Your task to perform on an android device: Open wifi settings Image 0: 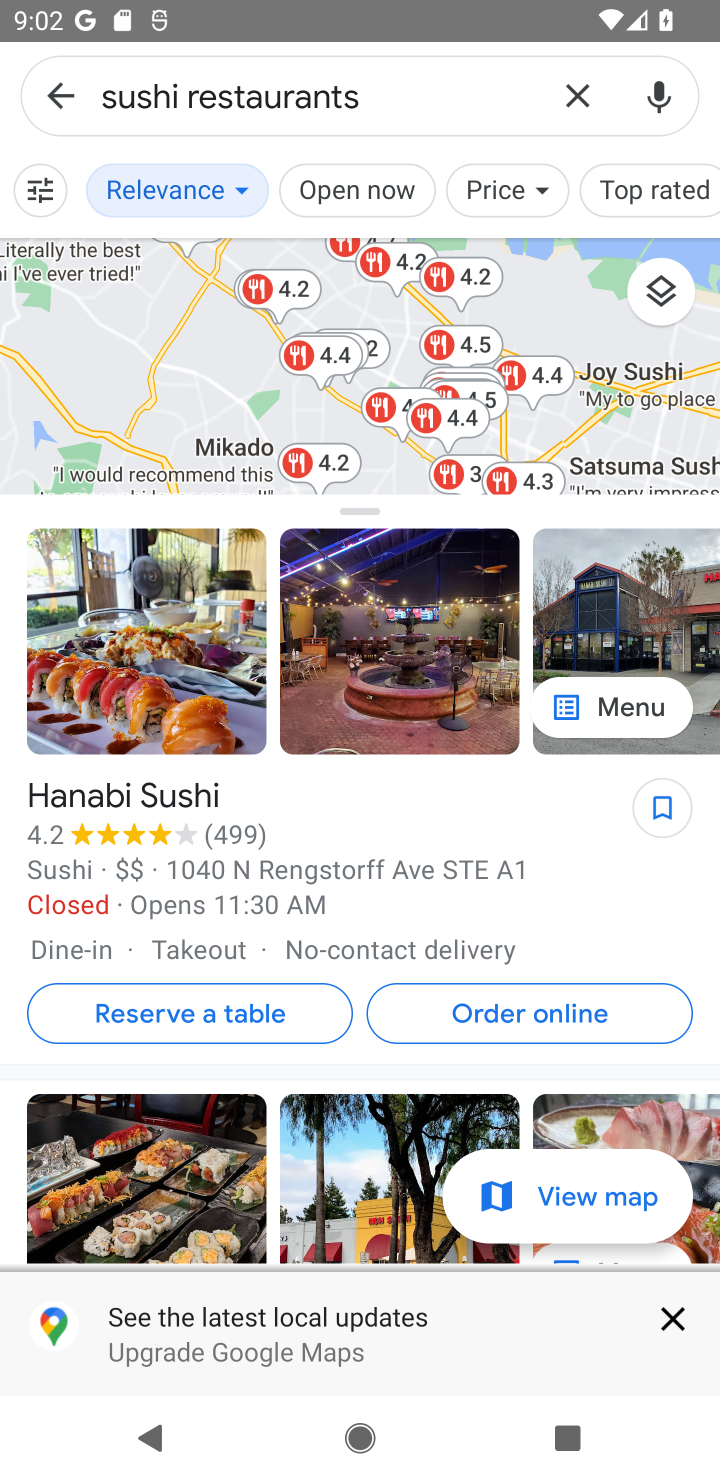
Step 0: press home button
Your task to perform on an android device: Open wifi settings Image 1: 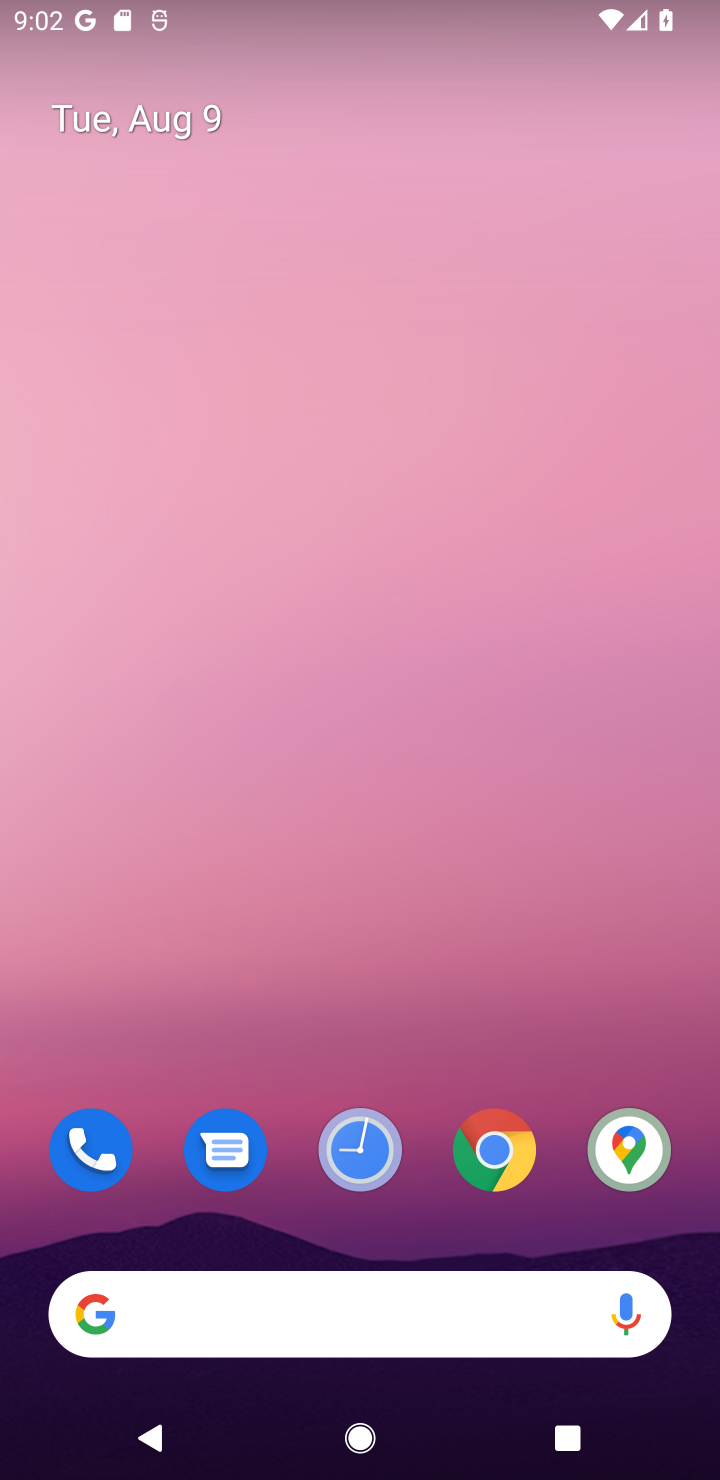
Step 1: drag from (466, 1240) to (524, 458)
Your task to perform on an android device: Open wifi settings Image 2: 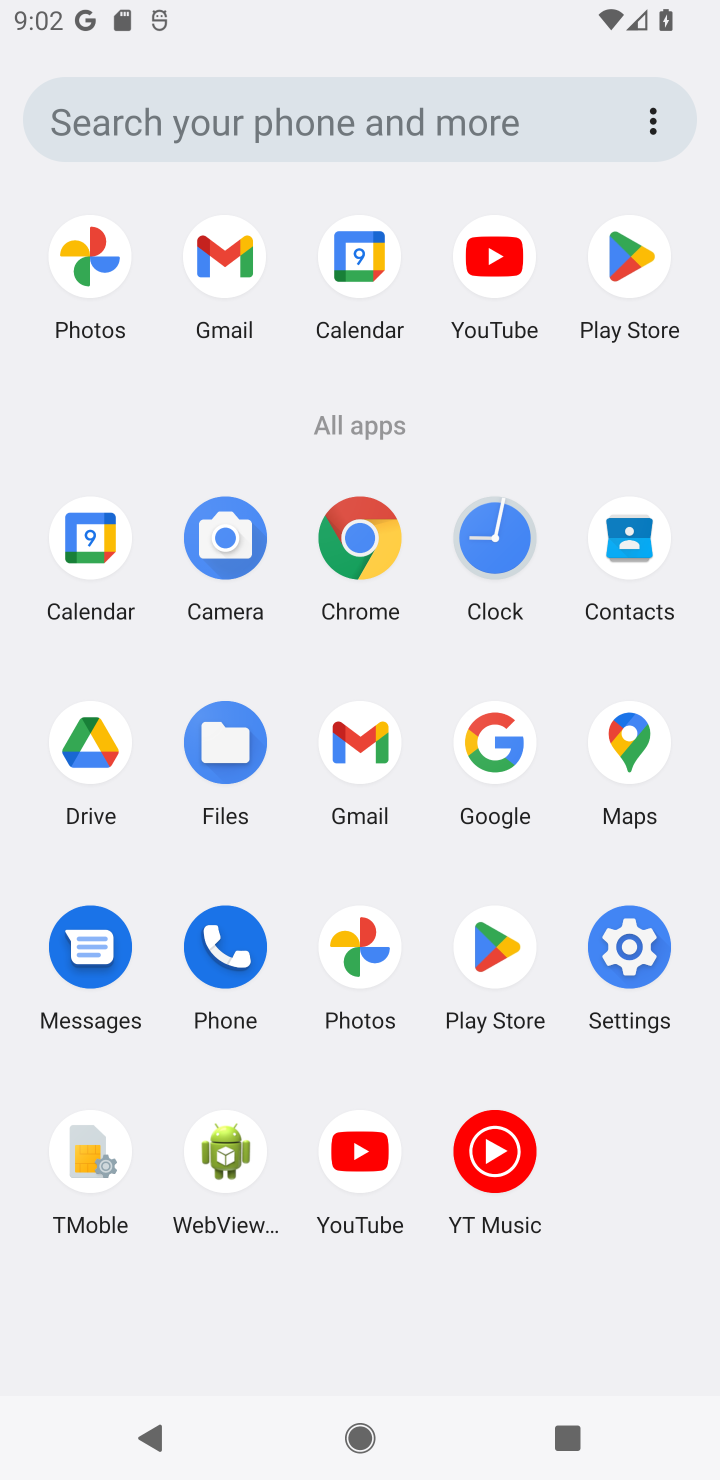
Step 2: click (649, 978)
Your task to perform on an android device: Open wifi settings Image 3: 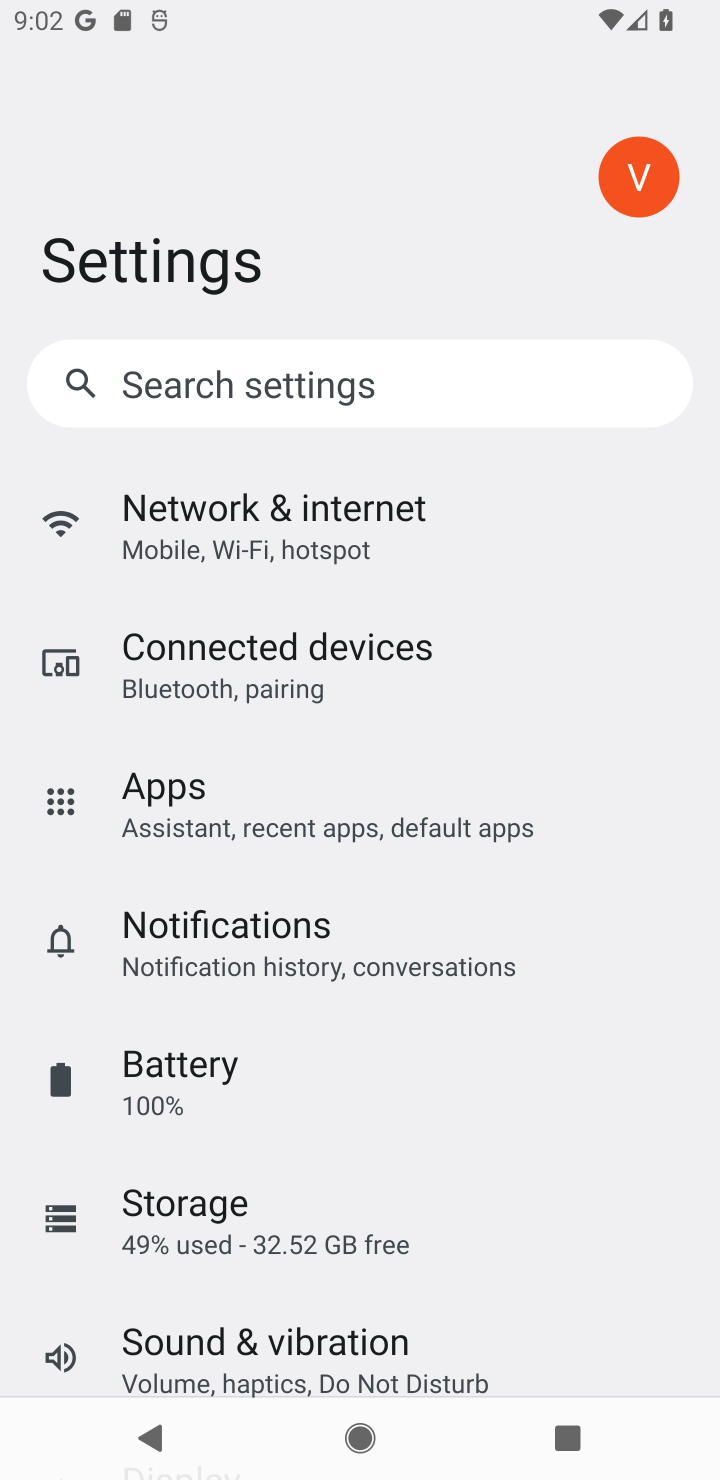
Step 3: click (236, 524)
Your task to perform on an android device: Open wifi settings Image 4: 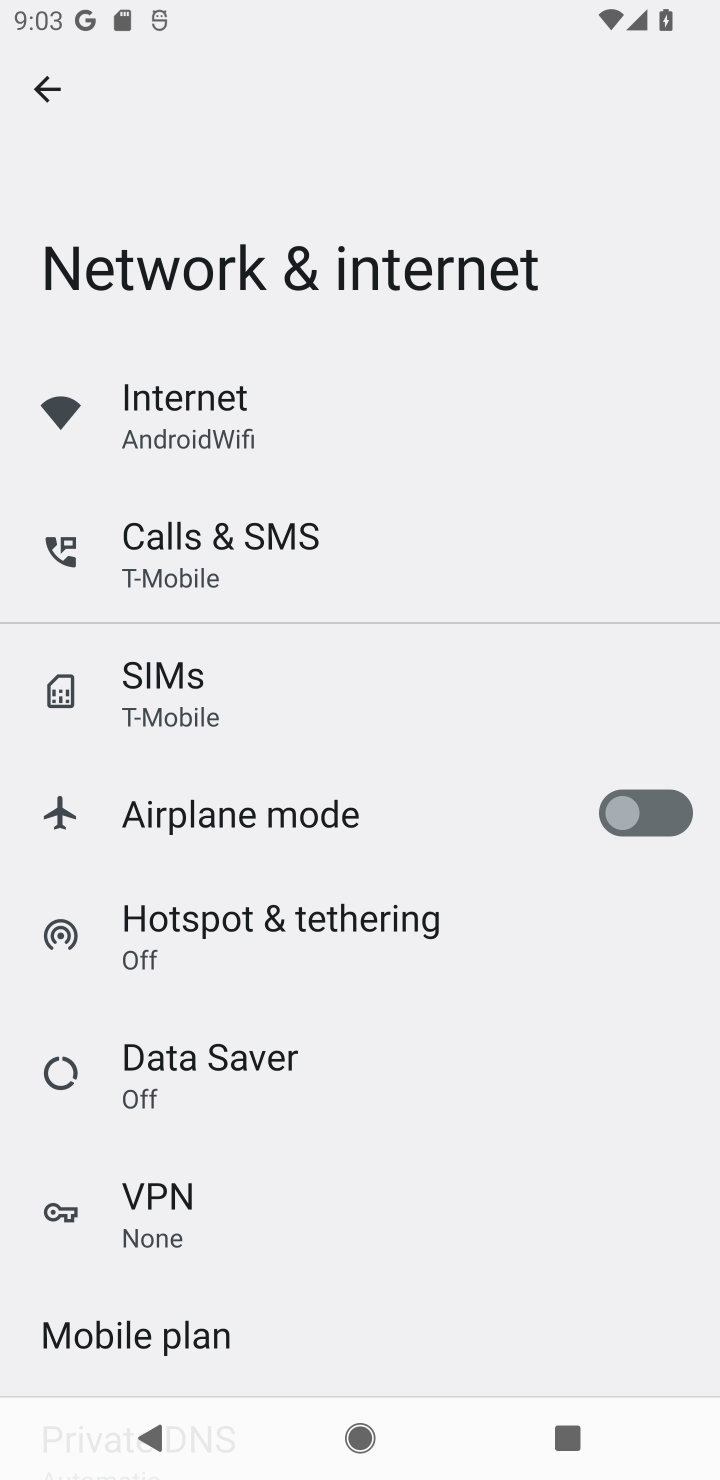
Step 4: click (227, 430)
Your task to perform on an android device: Open wifi settings Image 5: 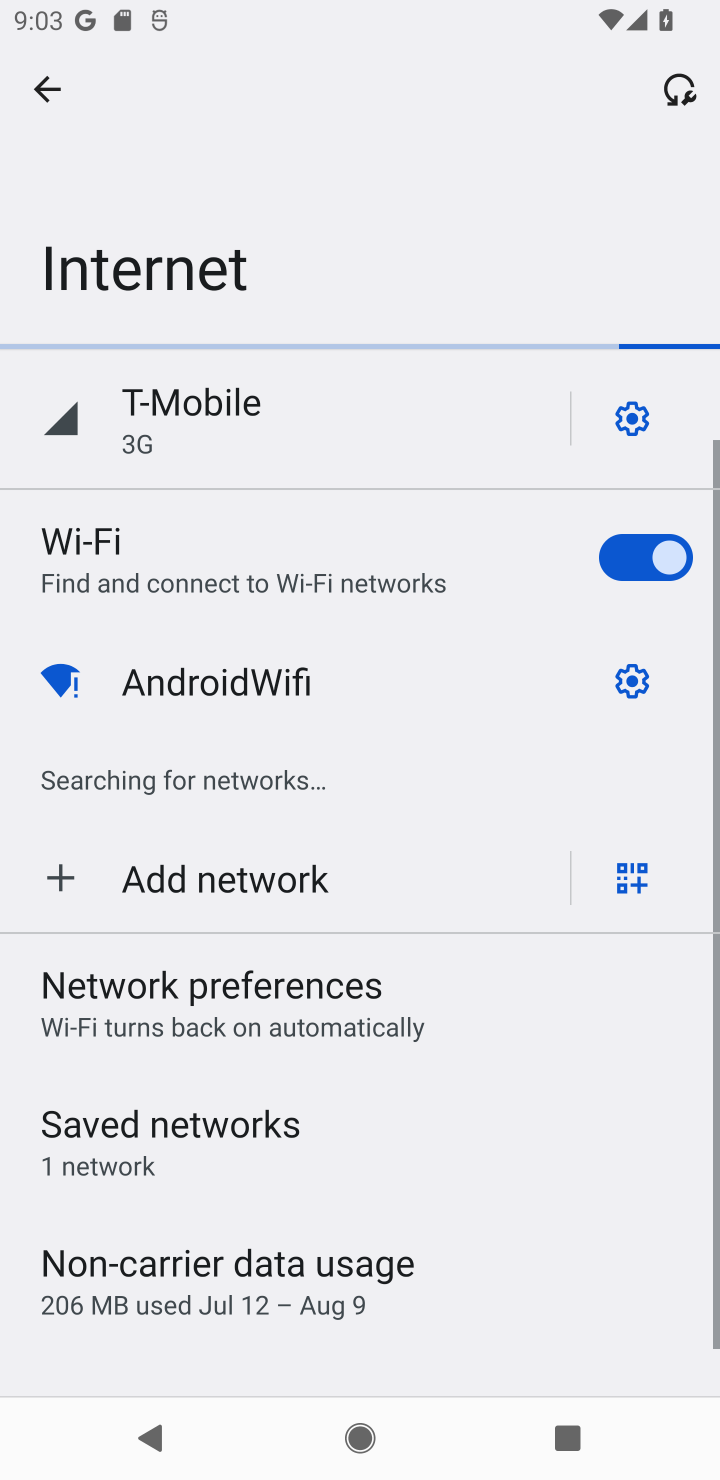
Step 5: task complete